Your task to perform on an android device: check google app version Image 0: 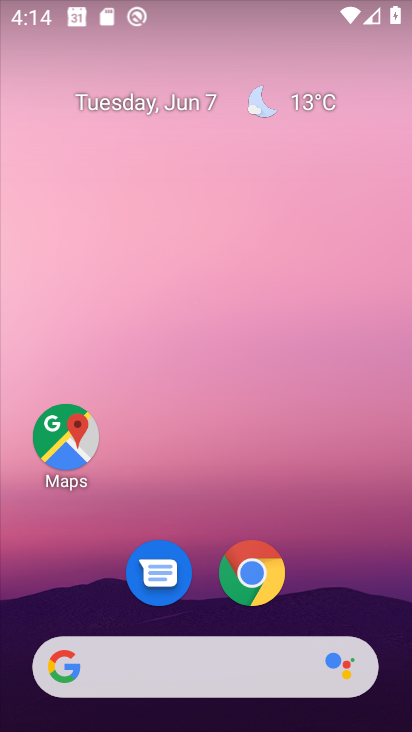
Step 0: press home button
Your task to perform on an android device: check google app version Image 1: 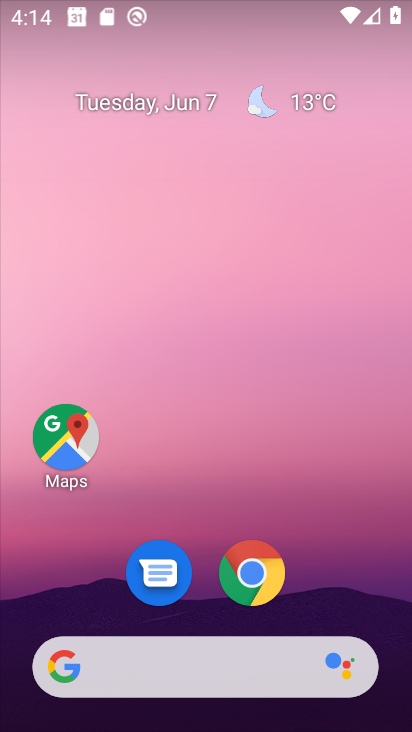
Step 1: drag from (325, 605) to (264, 91)
Your task to perform on an android device: check google app version Image 2: 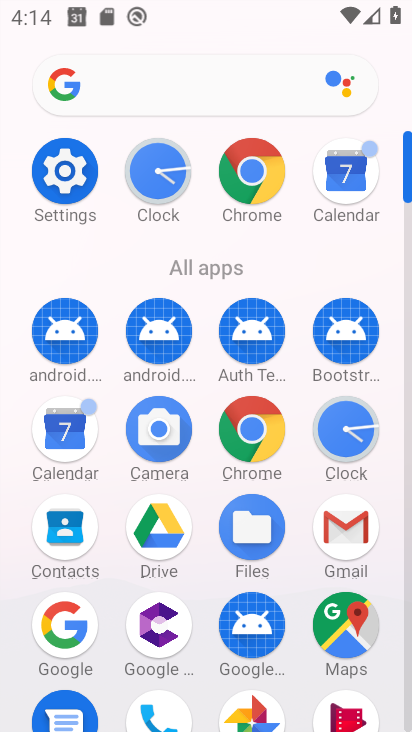
Step 2: drag from (203, 600) to (194, 406)
Your task to perform on an android device: check google app version Image 3: 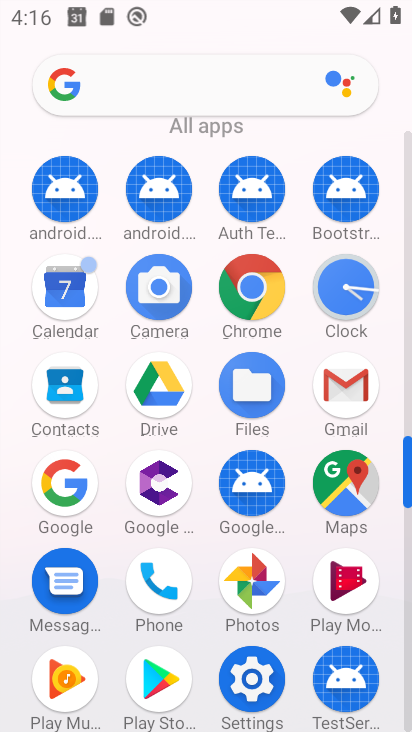
Step 3: click (62, 477)
Your task to perform on an android device: check google app version Image 4: 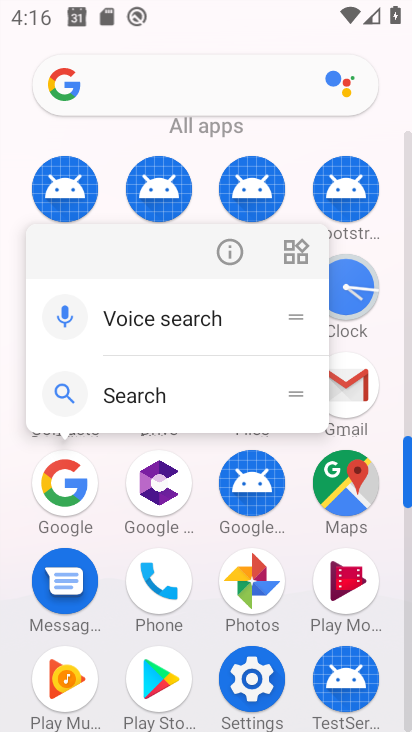
Step 4: click (235, 248)
Your task to perform on an android device: check google app version Image 5: 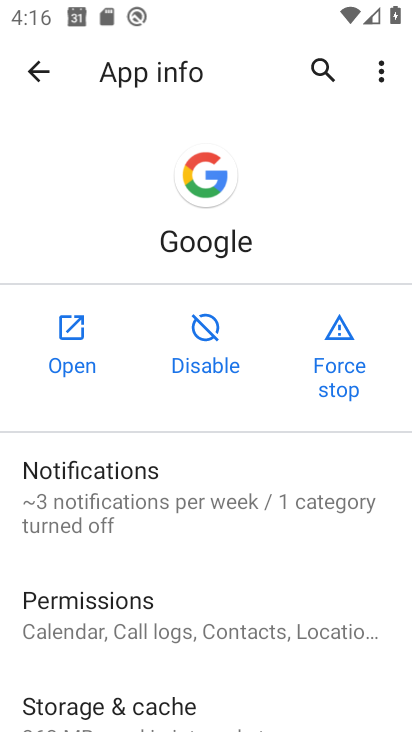
Step 5: drag from (188, 510) to (201, 191)
Your task to perform on an android device: check google app version Image 6: 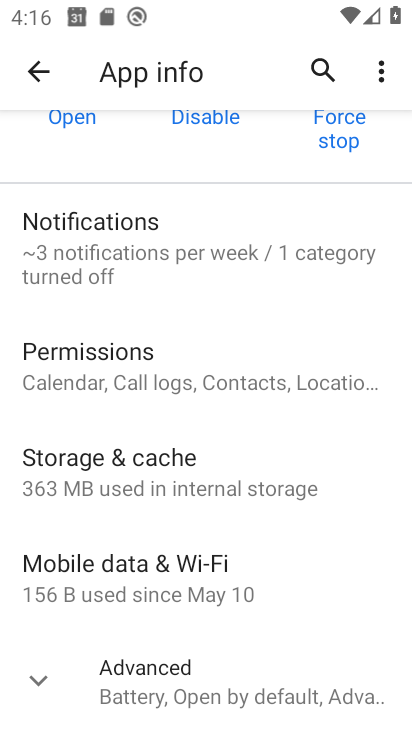
Step 6: click (191, 692)
Your task to perform on an android device: check google app version Image 7: 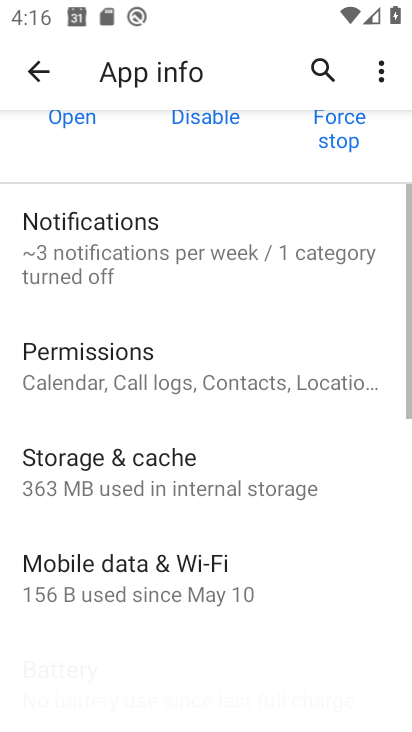
Step 7: task complete